Your task to perform on an android device: Open battery settings Image 0: 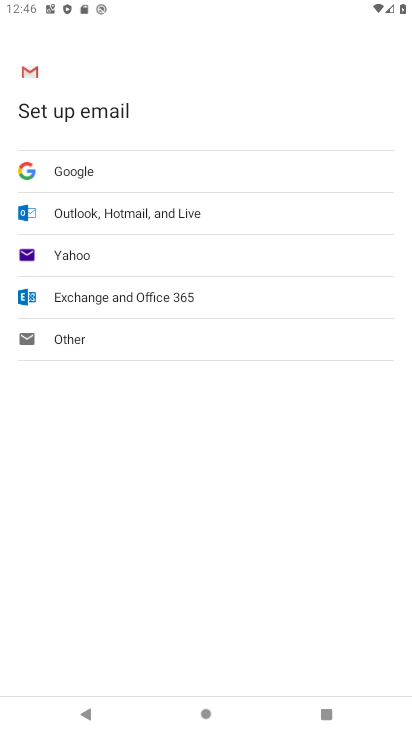
Step 0: press home button
Your task to perform on an android device: Open battery settings Image 1: 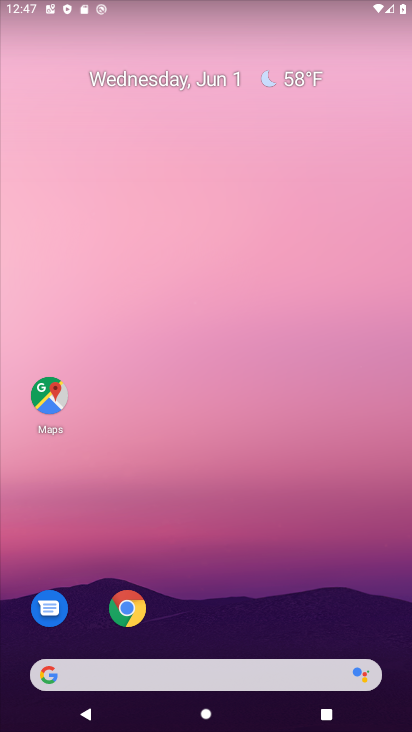
Step 1: drag from (258, 578) to (152, 283)
Your task to perform on an android device: Open battery settings Image 2: 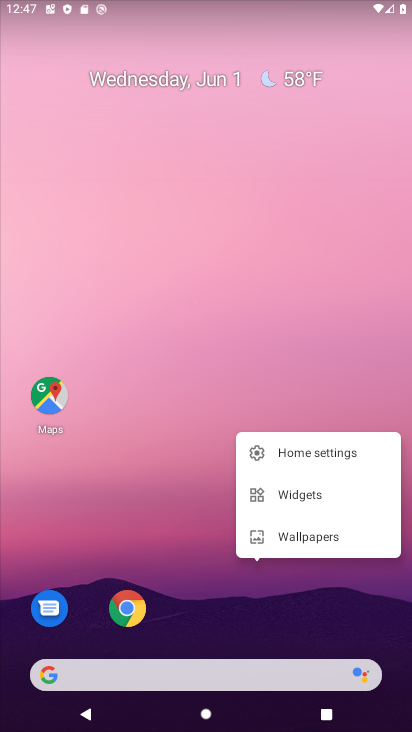
Step 2: click (152, 284)
Your task to perform on an android device: Open battery settings Image 3: 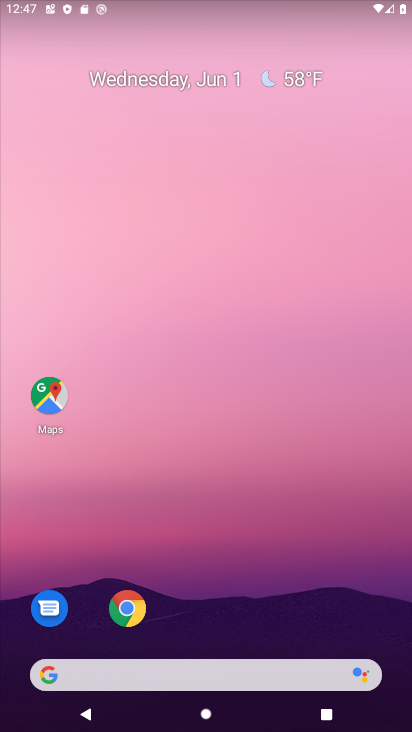
Step 3: click (191, 350)
Your task to perform on an android device: Open battery settings Image 4: 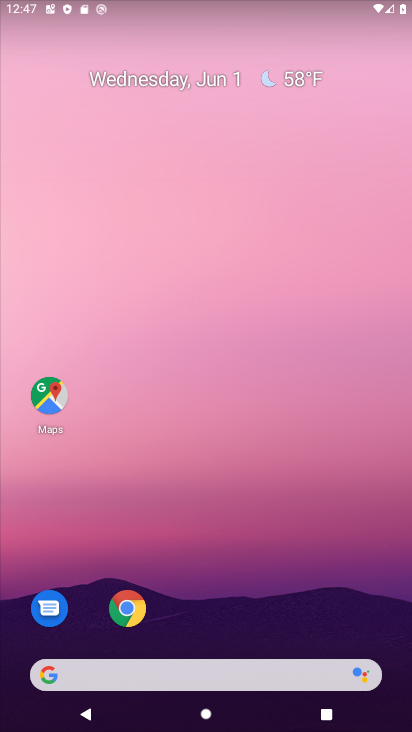
Step 4: drag from (237, 566) to (268, 206)
Your task to perform on an android device: Open battery settings Image 5: 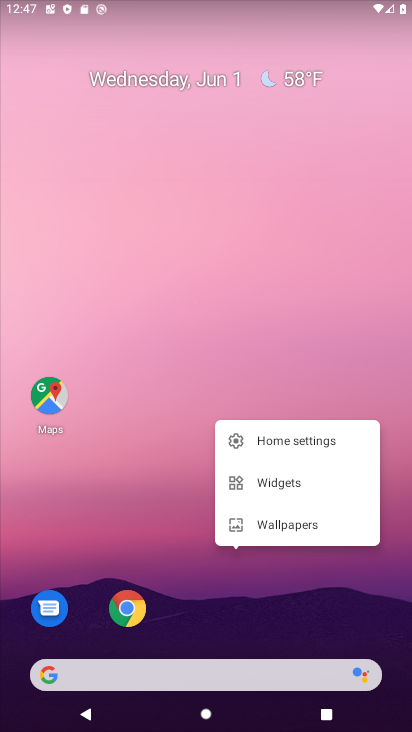
Step 5: click (266, 207)
Your task to perform on an android device: Open battery settings Image 6: 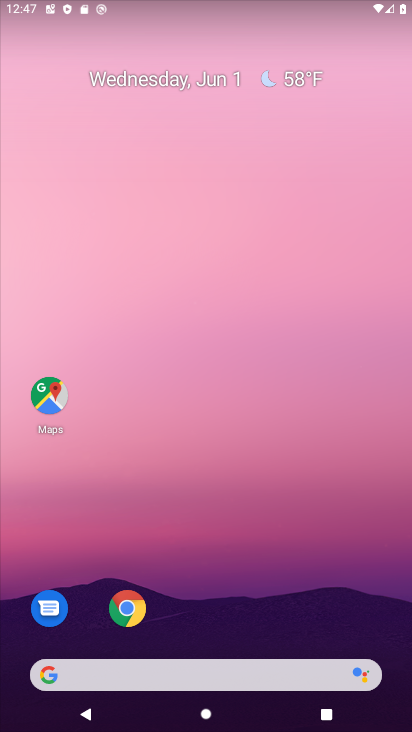
Step 6: click (163, 373)
Your task to perform on an android device: Open battery settings Image 7: 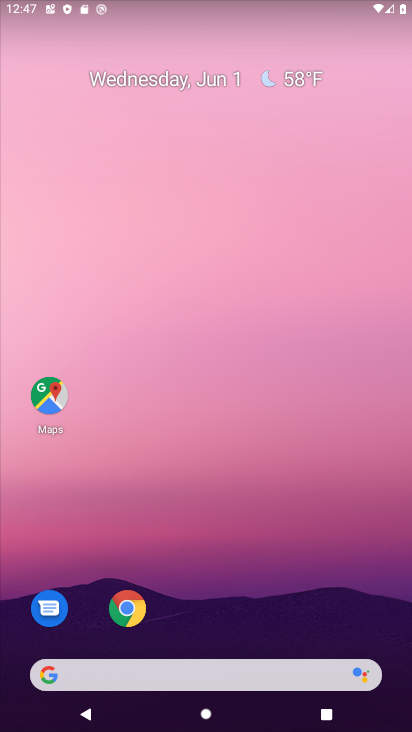
Step 7: drag from (206, 632) to (291, 83)
Your task to perform on an android device: Open battery settings Image 8: 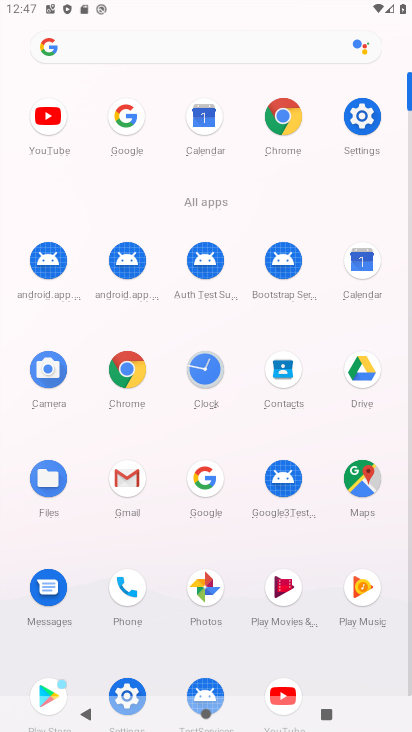
Step 8: click (367, 124)
Your task to perform on an android device: Open battery settings Image 9: 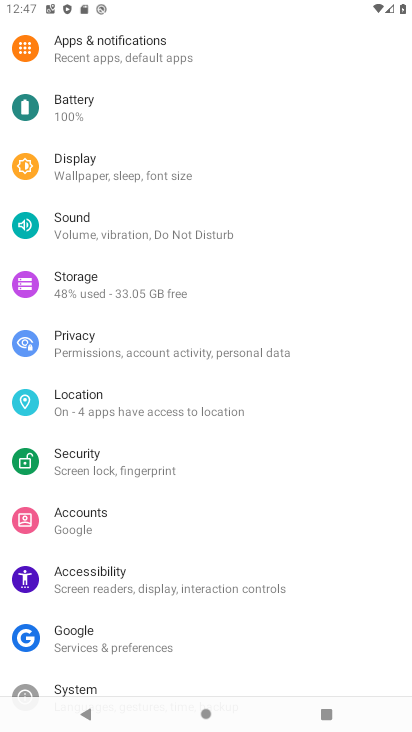
Step 9: click (91, 100)
Your task to perform on an android device: Open battery settings Image 10: 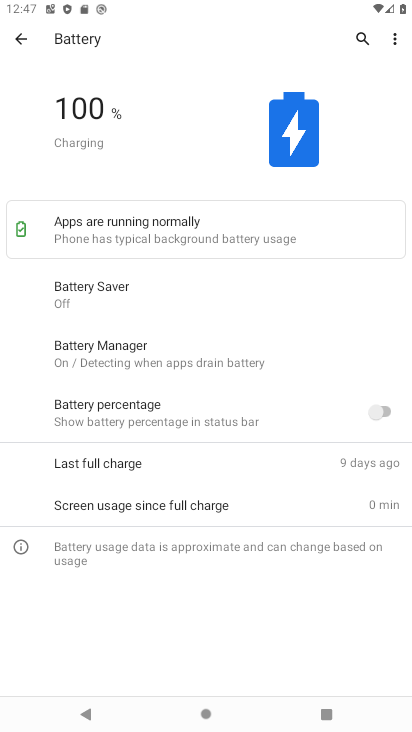
Step 10: task complete